Your task to perform on an android device: delete browsing data in the chrome app Image 0: 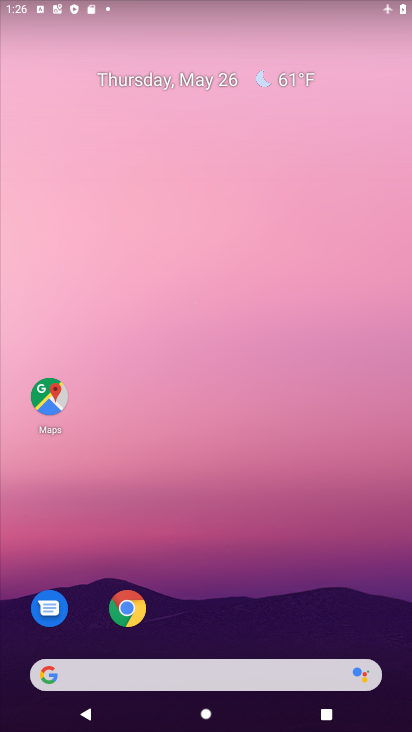
Step 0: click (125, 610)
Your task to perform on an android device: delete browsing data in the chrome app Image 1: 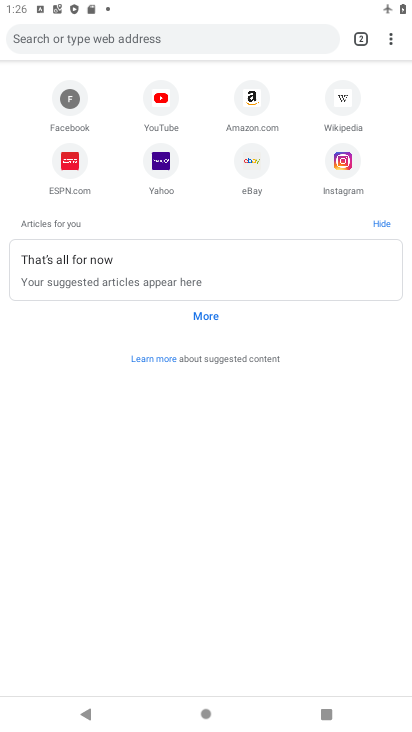
Step 1: click (389, 42)
Your task to perform on an android device: delete browsing data in the chrome app Image 2: 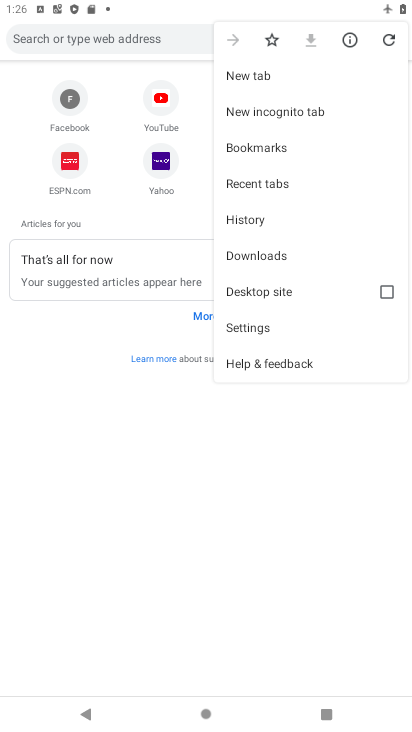
Step 2: click (256, 212)
Your task to perform on an android device: delete browsing data in the chrome app Image 3: 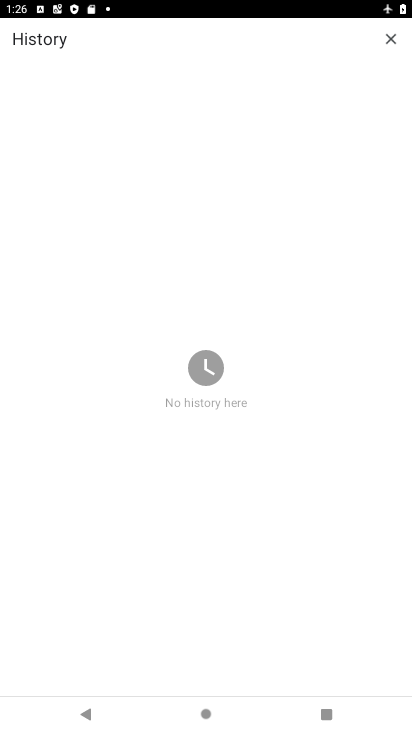
Step 3: task complete